Your task to perform on an android device: Is it going to rain tomorrow? Image 0: 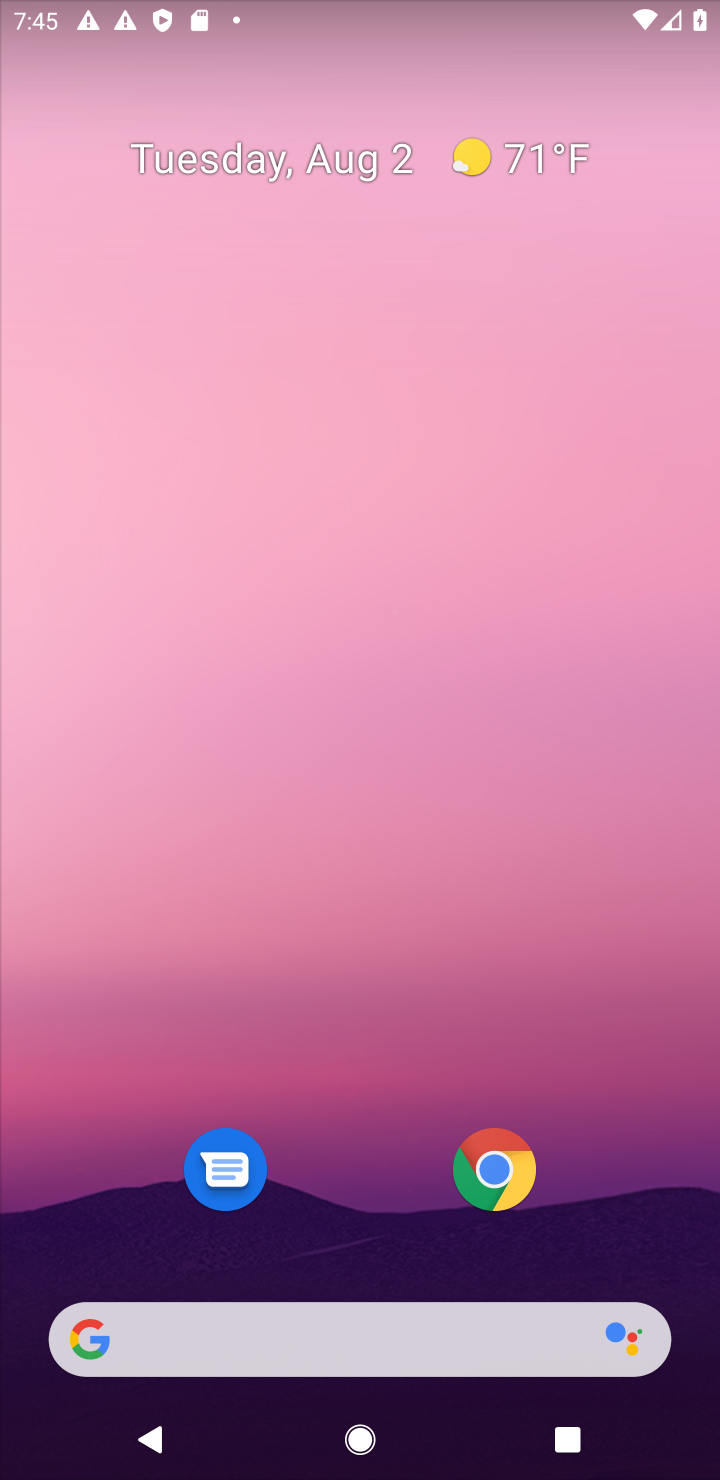
Step 0: click (498, 162)
Your task to perform on an android device: Is it going to rain tomorrow? Image 1: 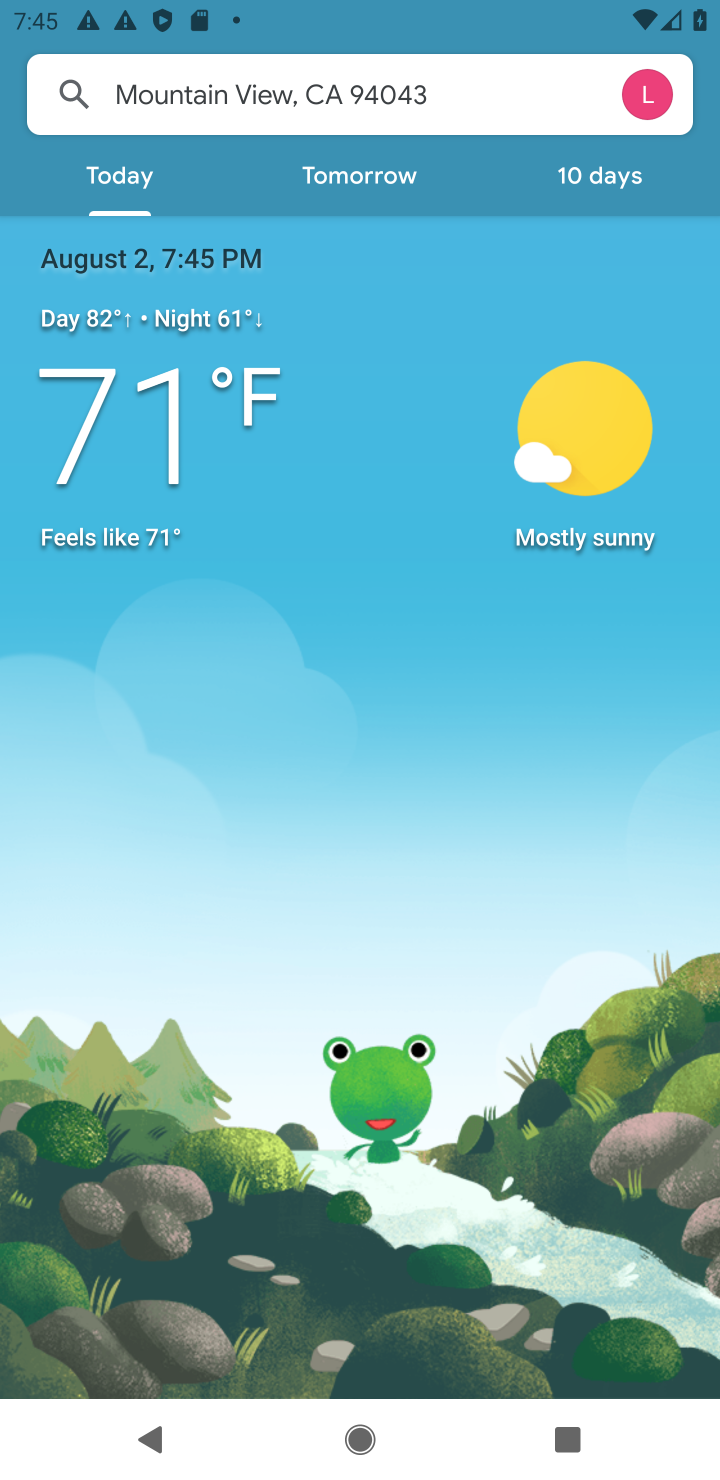
Step 1: click (369, 180)
Your task to perform on an android device: Is it going to rain tomorrow? Image 2: 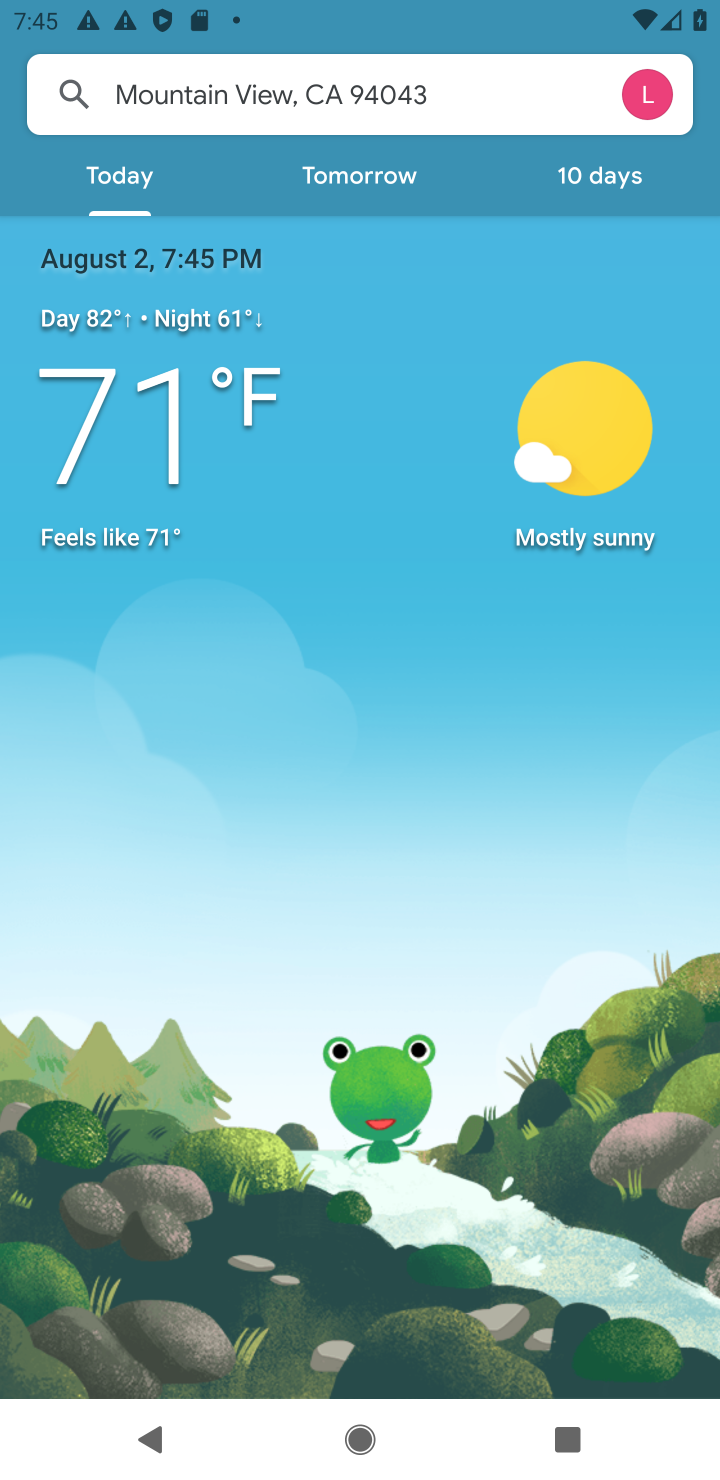
Step 2: click (369, 180)
Your task to perform on an android device: Is it going to rain tomorrow? Image 3: 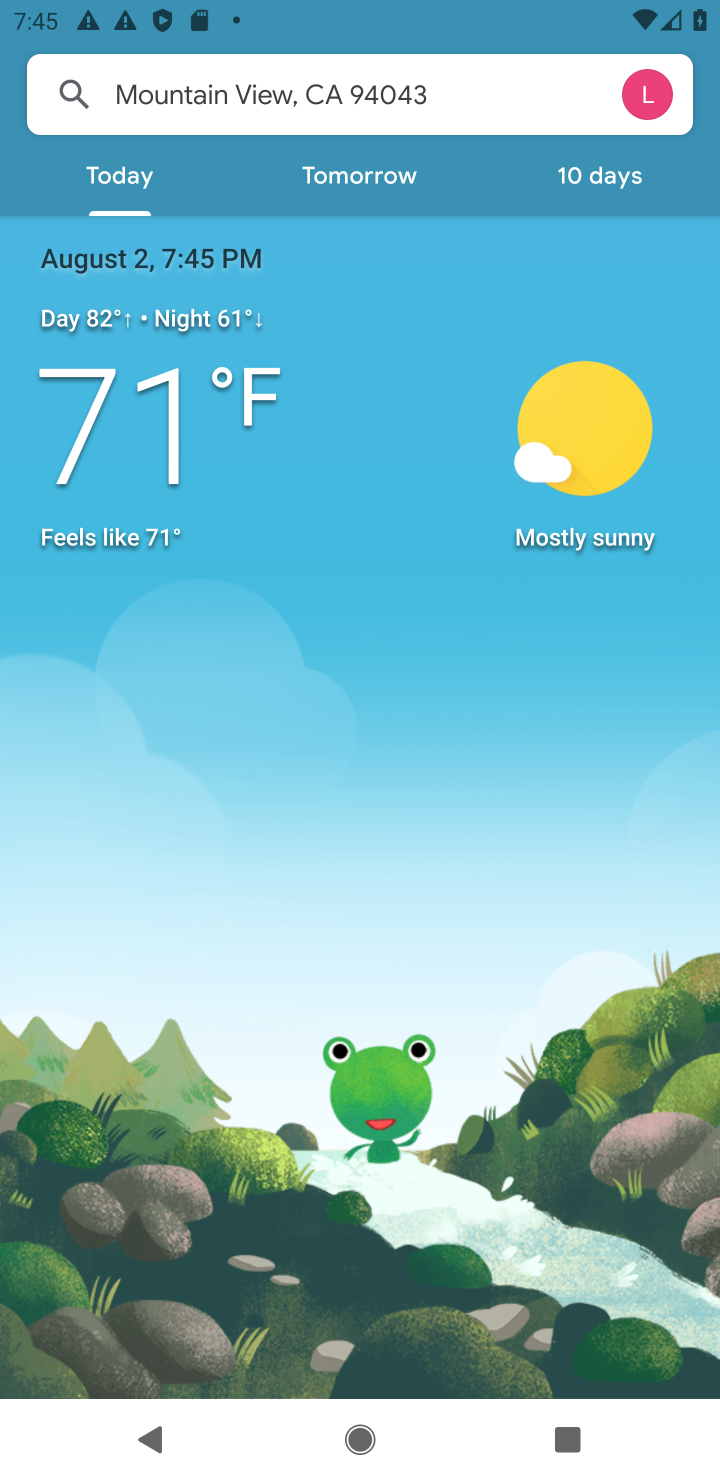
Step 3: click (369, 180)
Your task to perform on an android device: Is it going to rain tomorrow? Image 4: 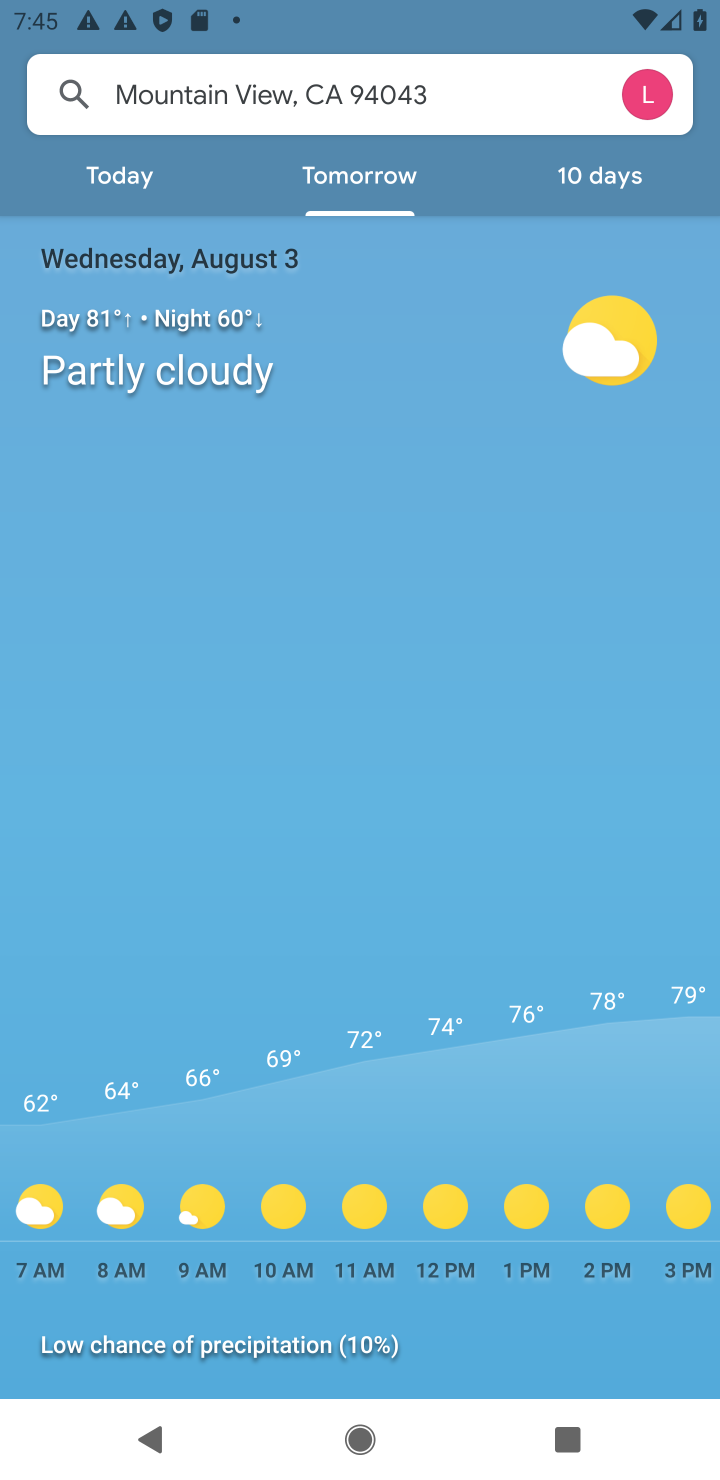
Step 4: task complete